Your task to perform on an android device: Open wifi settings Image 0: 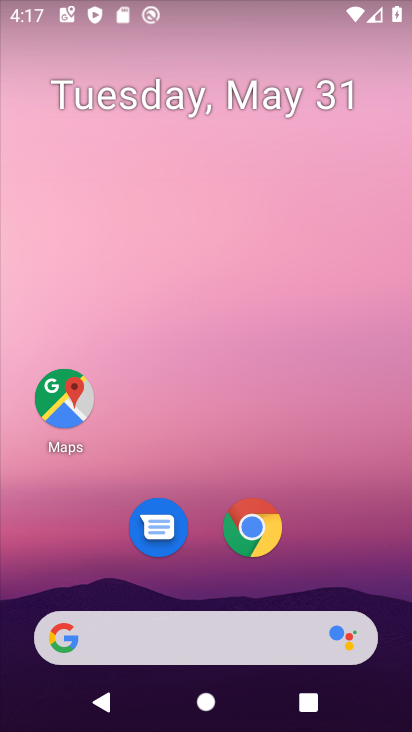
Step 0: drag from (319, 530) to (254, 12)
Your task to perform on an android device: Open wifi settings Image 1: 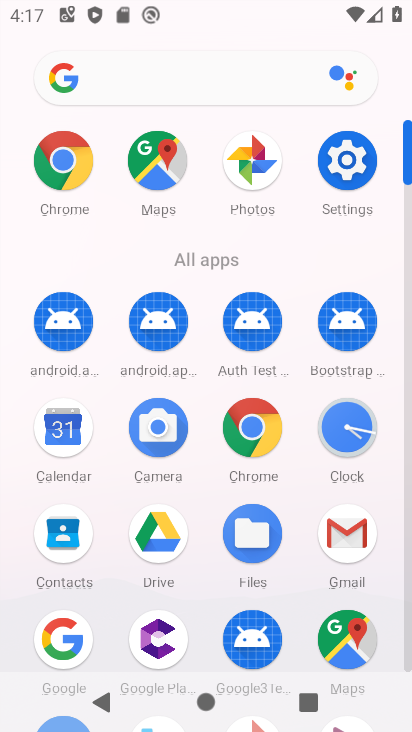
Step 1: click (342, 155)
Your task to perform on an android device: Open wifi settings Image 2: 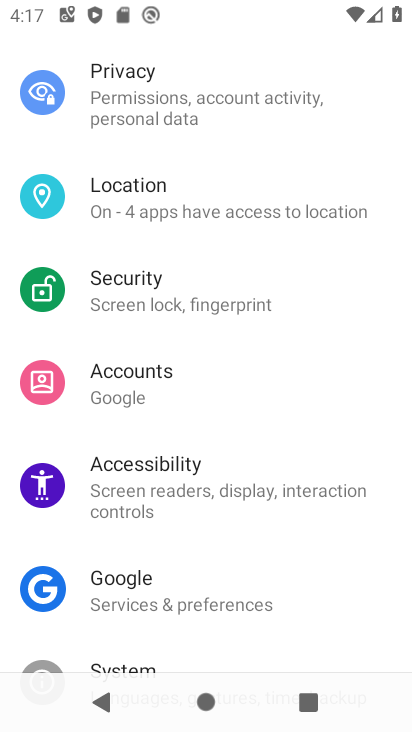
Step 2: drag from (280, 101) to (261, 582)
Your task to perform on an android device: Open wifi settings Image 3: 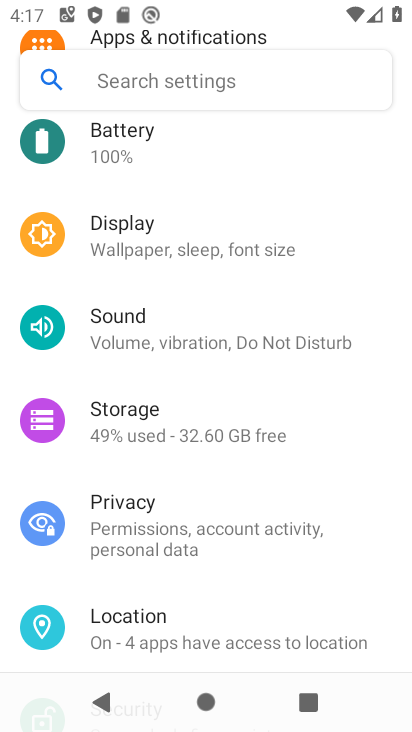
Step 3: drag from (231, 221) to (218, 655)
Your task to perform on an android device: Open wifi settings Image 4: 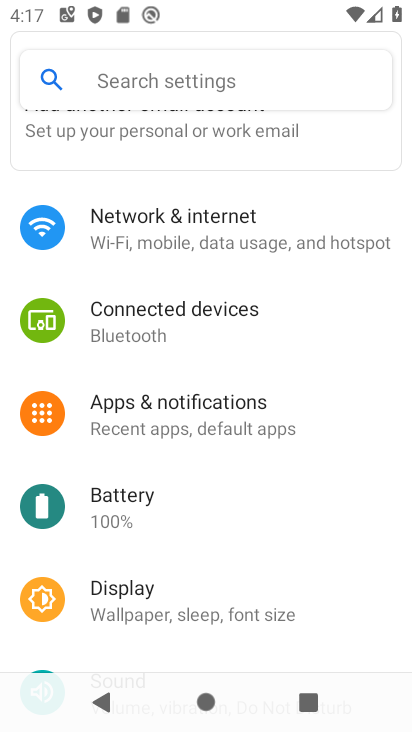
Step 4: click (172, 219)
Your task to perform on an android device: Open wifi settings Image 5: 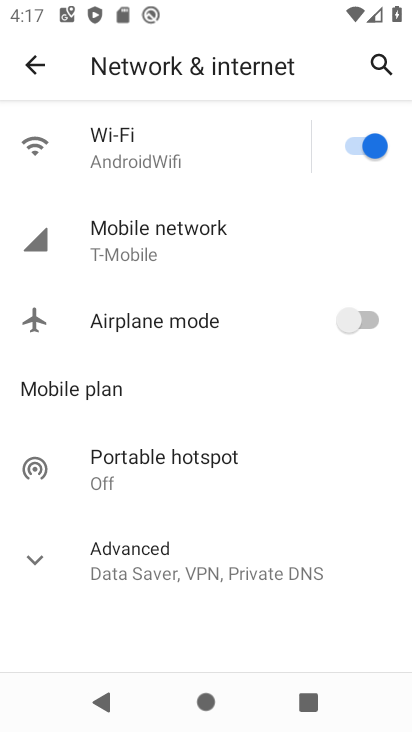
Step 5: click (141, 138)
Your task to perform on an android device: Open wifi settings Image 6: 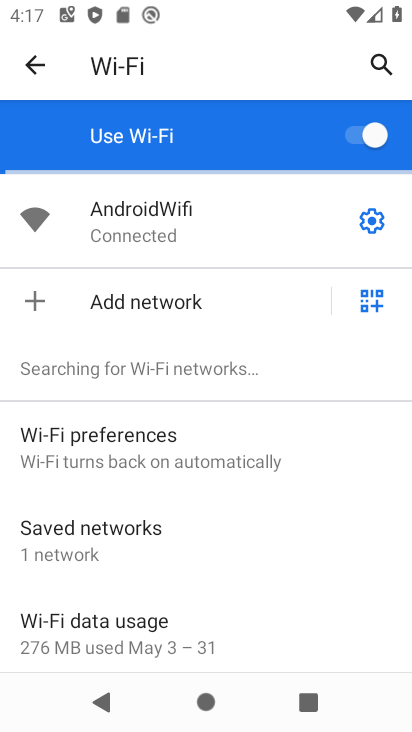
Step 6: task complete